Your task to perform on an android device: Go to Reddit.com Image 0: 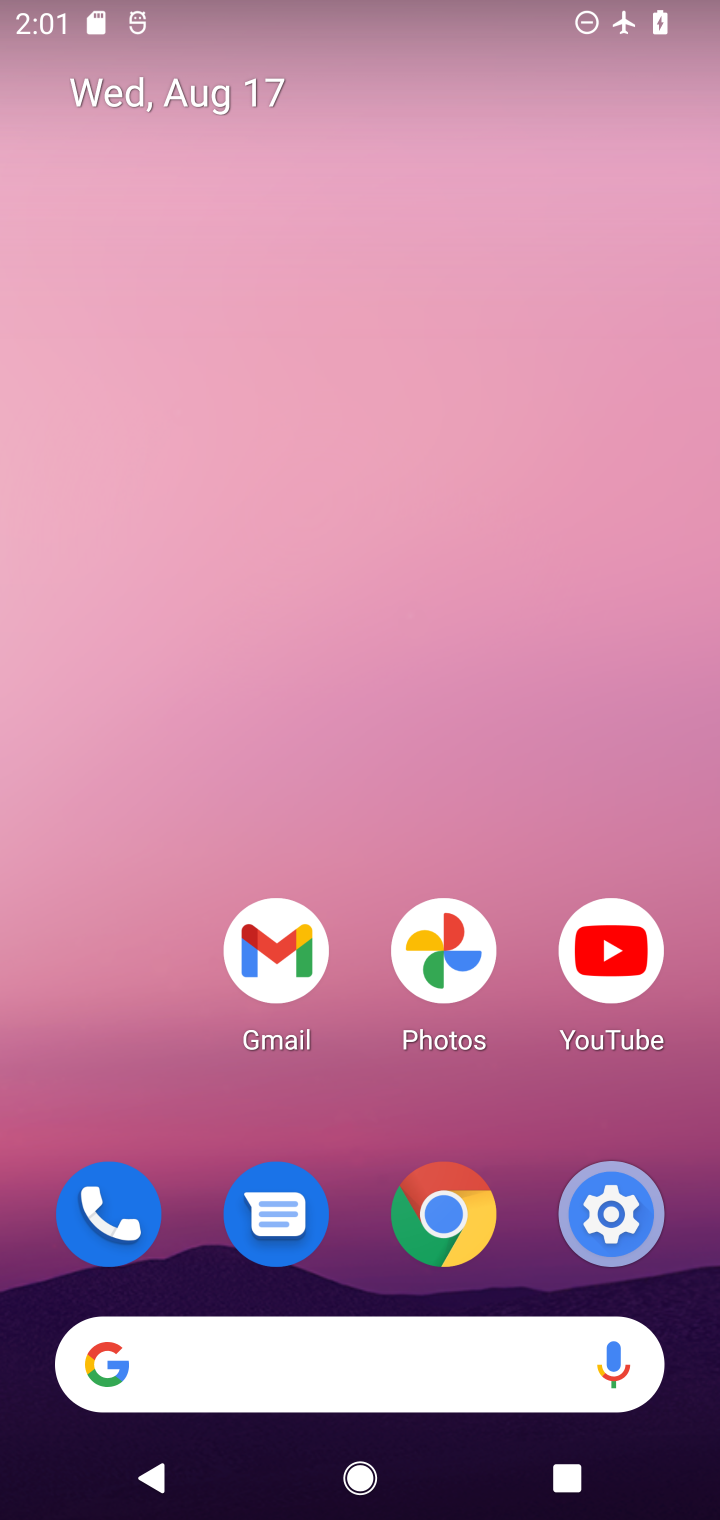
Step 0: click (453, 1218)
Your task to perform on an android device: Go to Reddit.com Image 1: 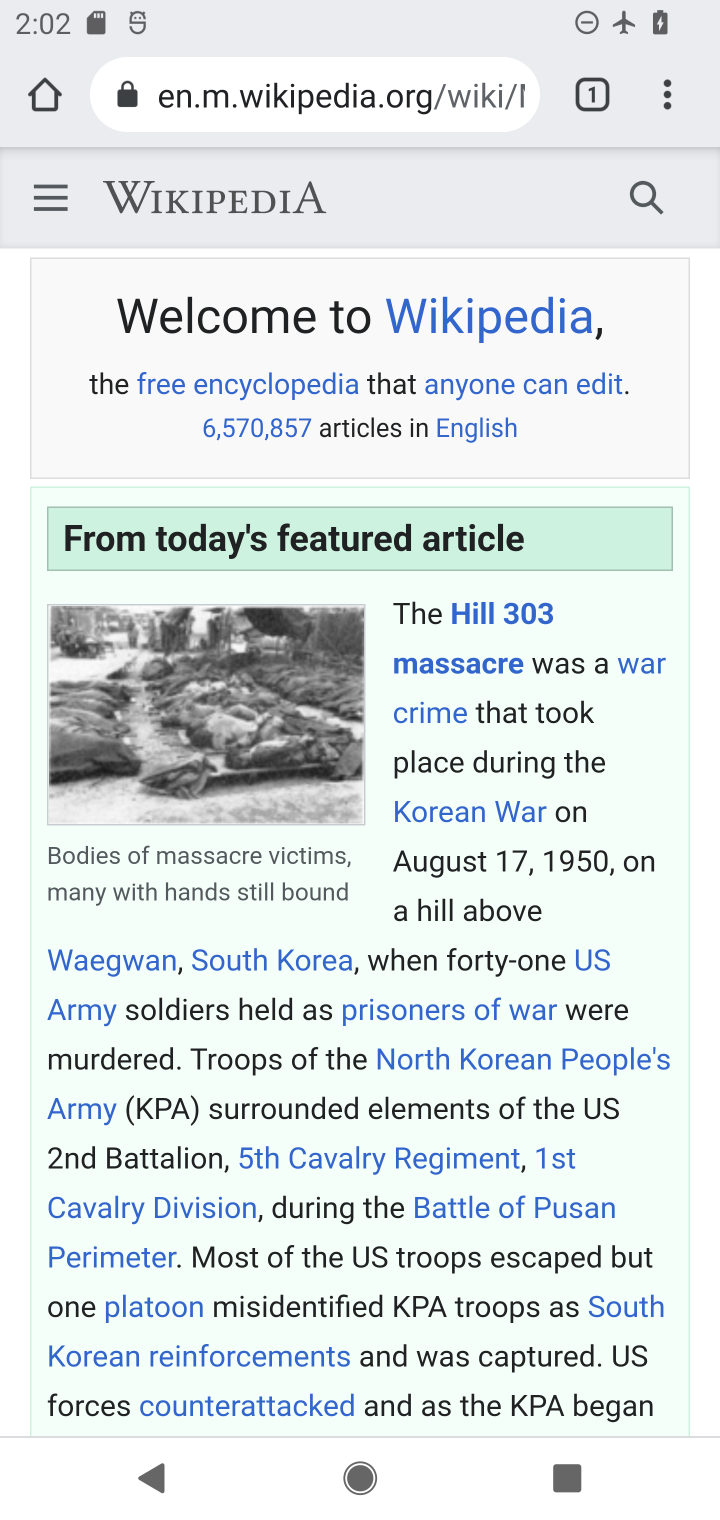
Step 1: click (660, 86)
Your task to perform on an android device: Go to Reddit.com Image 2: 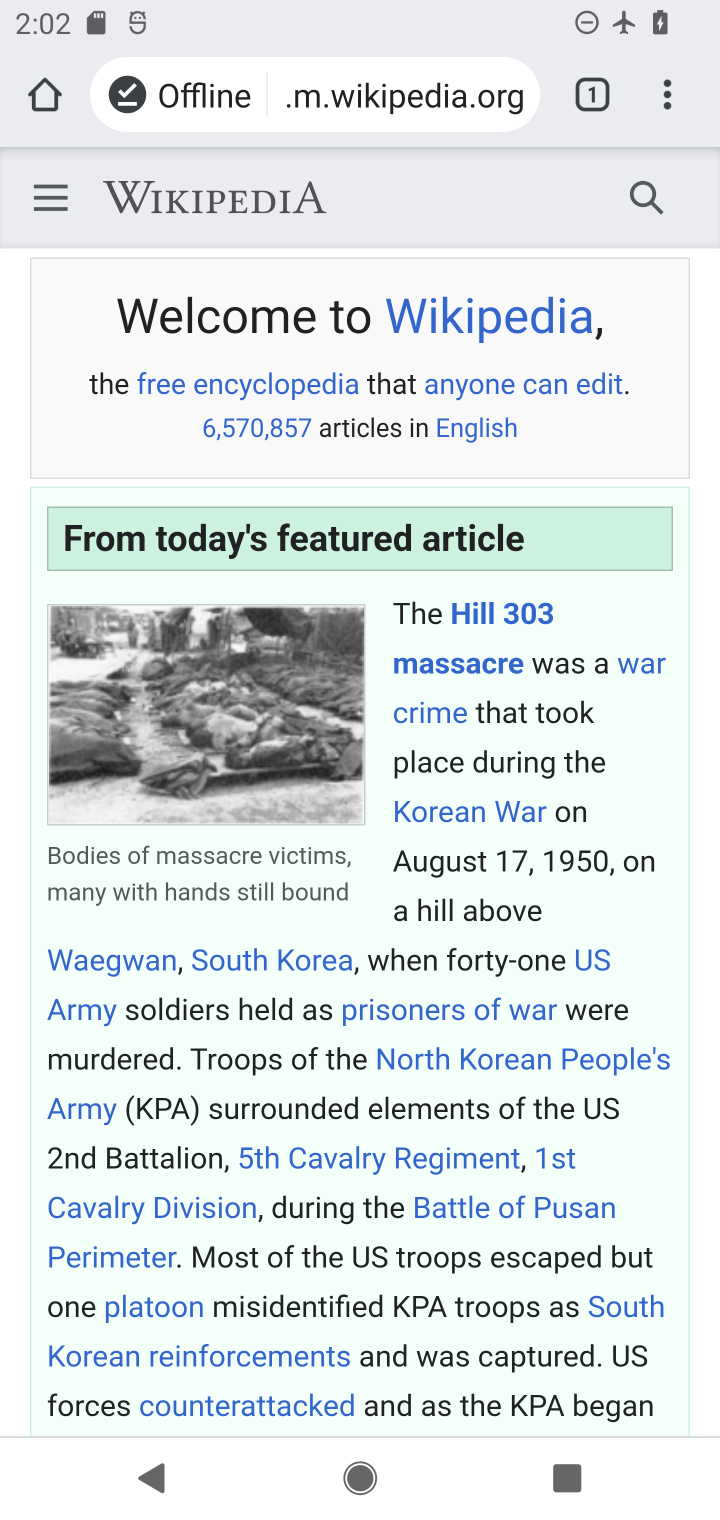
Step 2: click (637, 69)
Your task to perform on an android device: Go to Reddit.com Image 3: 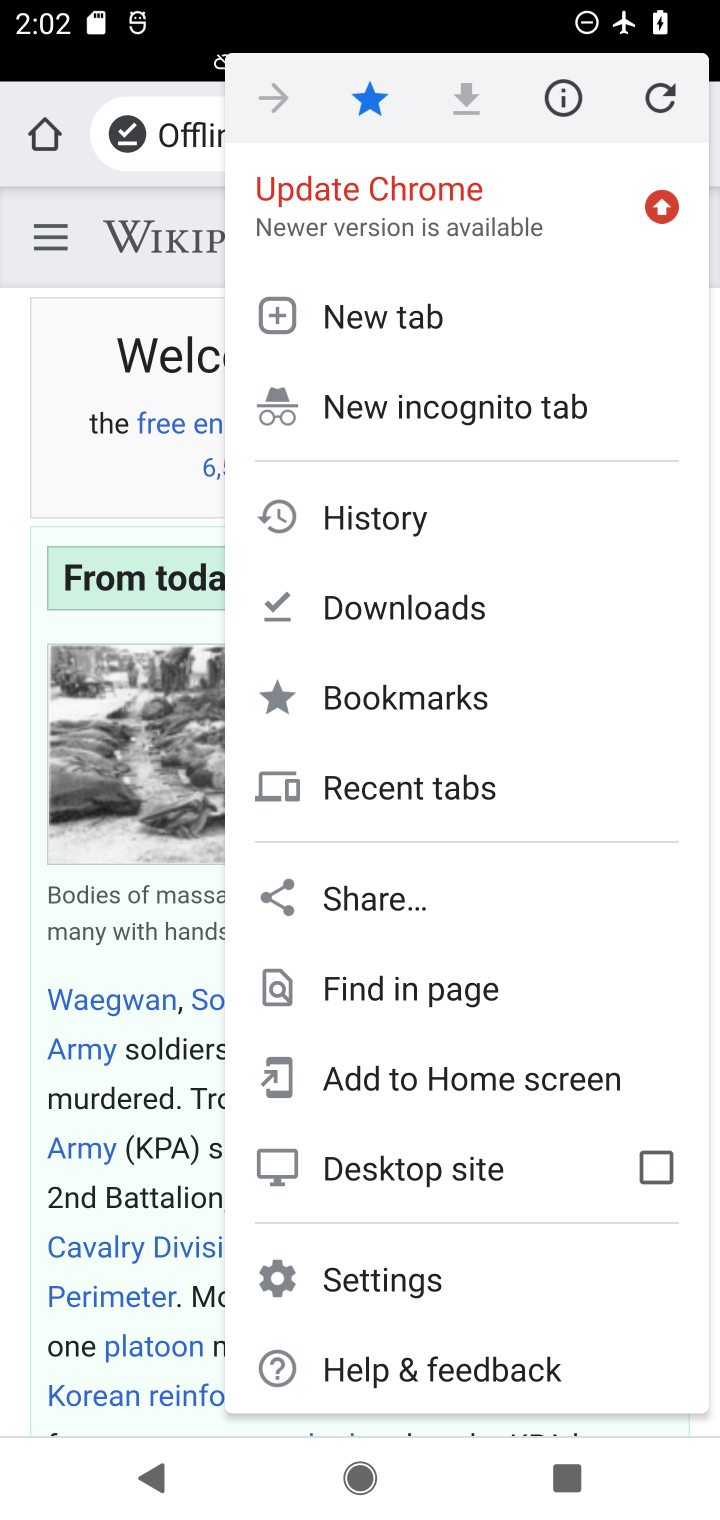
Step 3: click (410, 305)
Your task to perform on an android device: Go to Reddit.com Image 4: 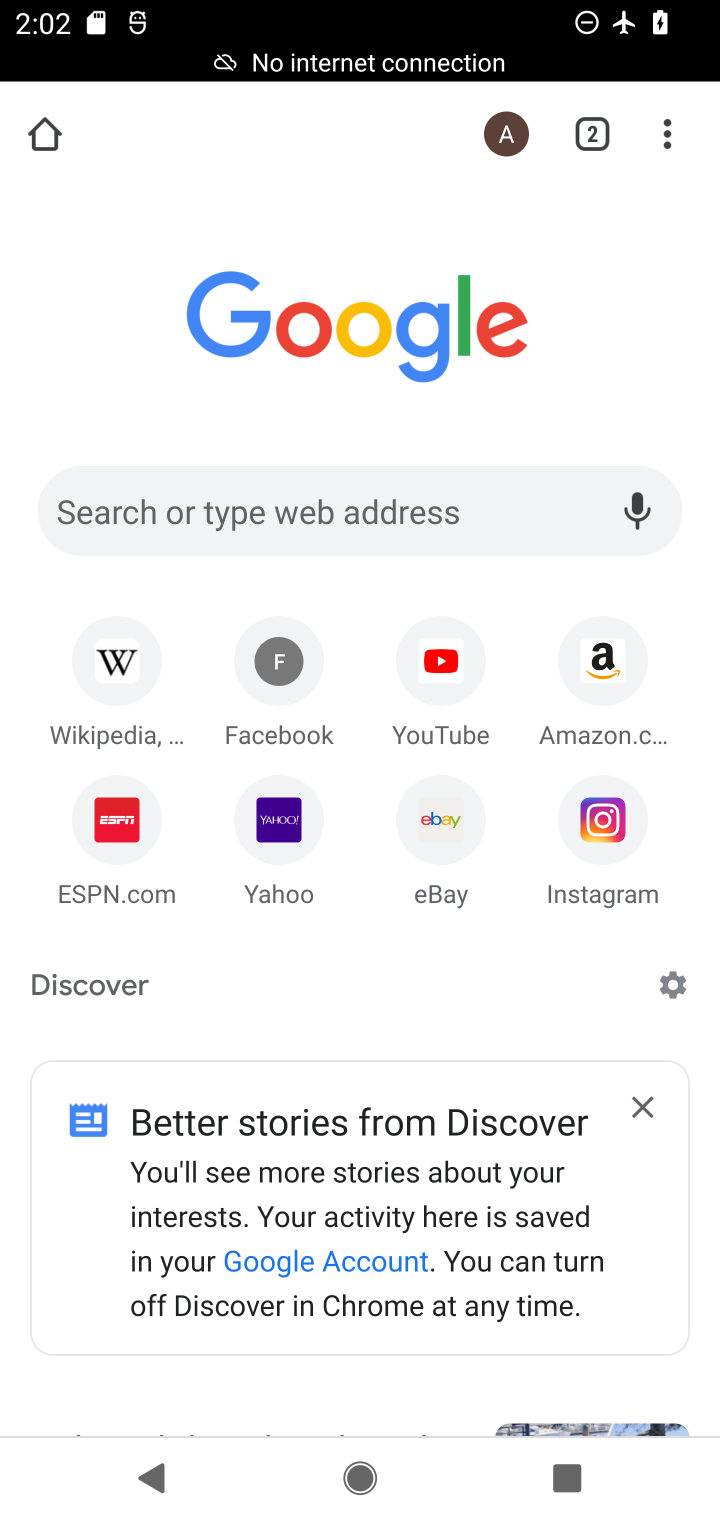
Step 4: click (381, 496)
Your task to perform on an android device: Go to Reddit.com Image 5: 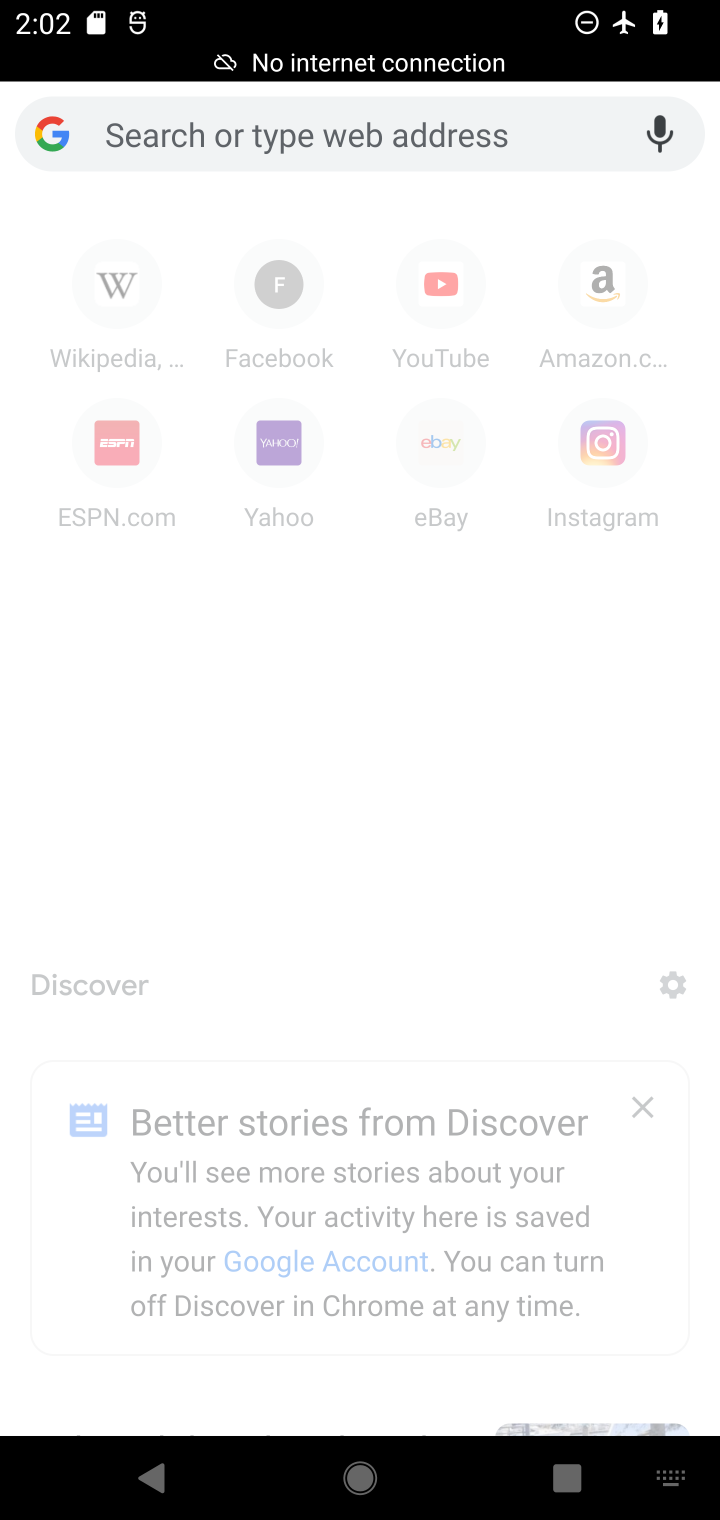
Step 5: type "reddit.com"
Your task to perform on an android device: Go to Reddit.com Image 6: 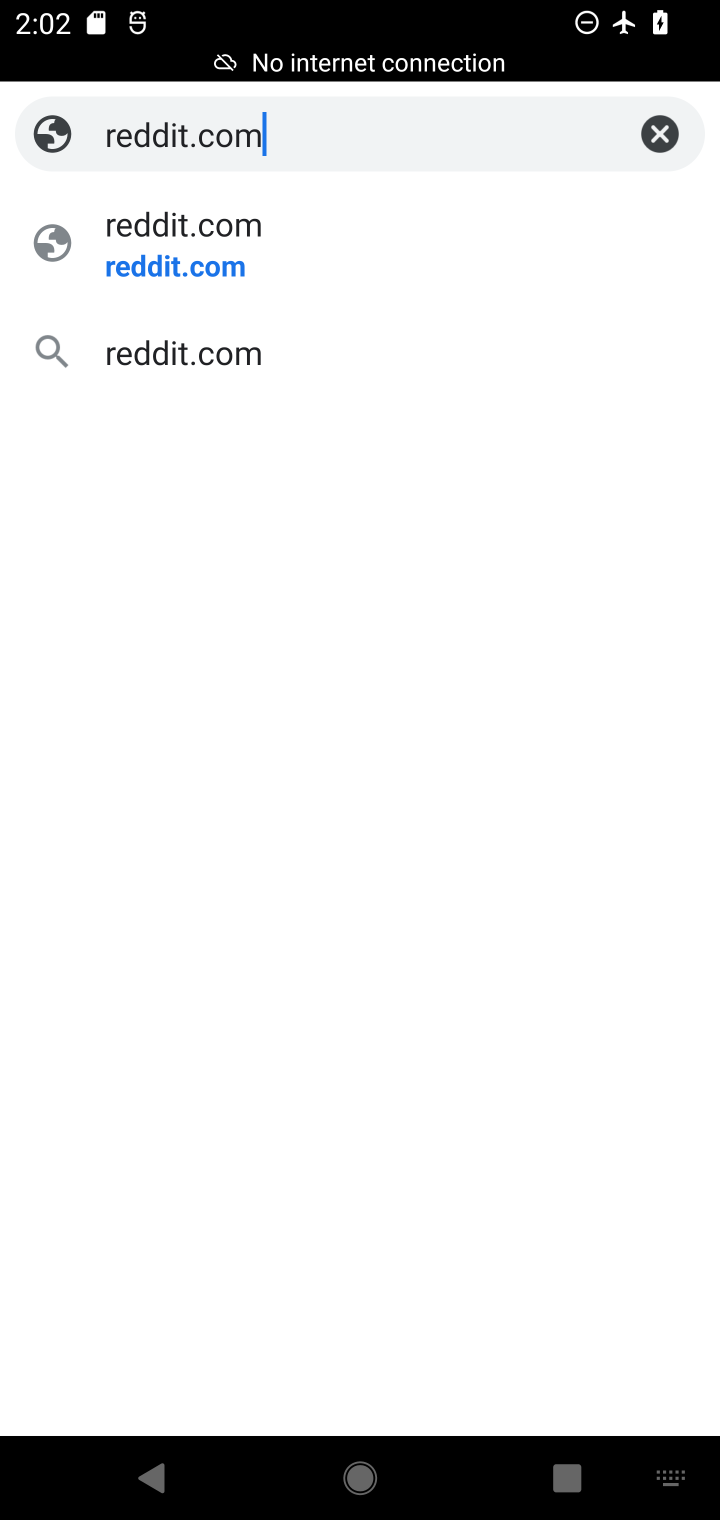
Step 6: click (176, 248)
Your task to perform on an android device: Go to Reddit.com Image 7: 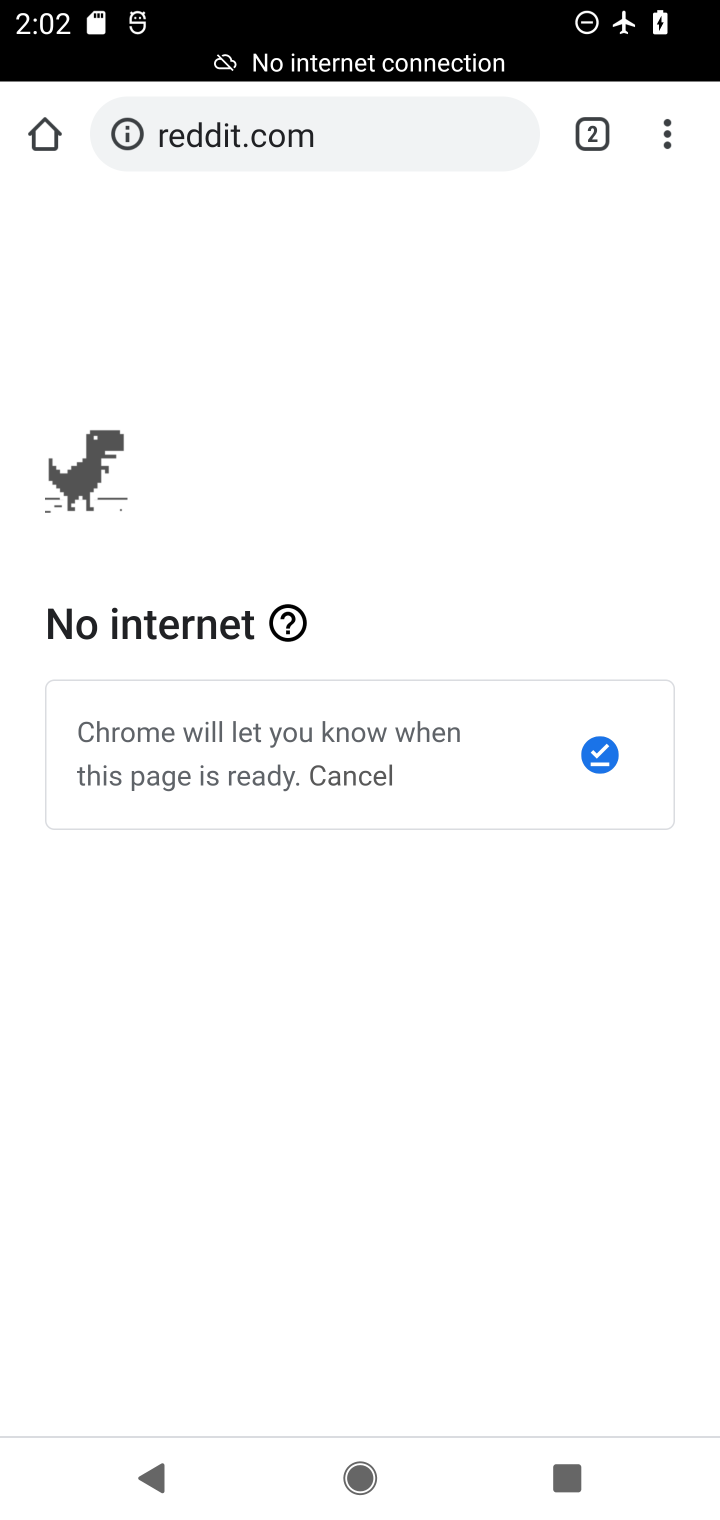
Step 7: task complete